Your task to perform on an android device: Add "razer deathadder" to the cart on newegg, then select checkout. Image 0: 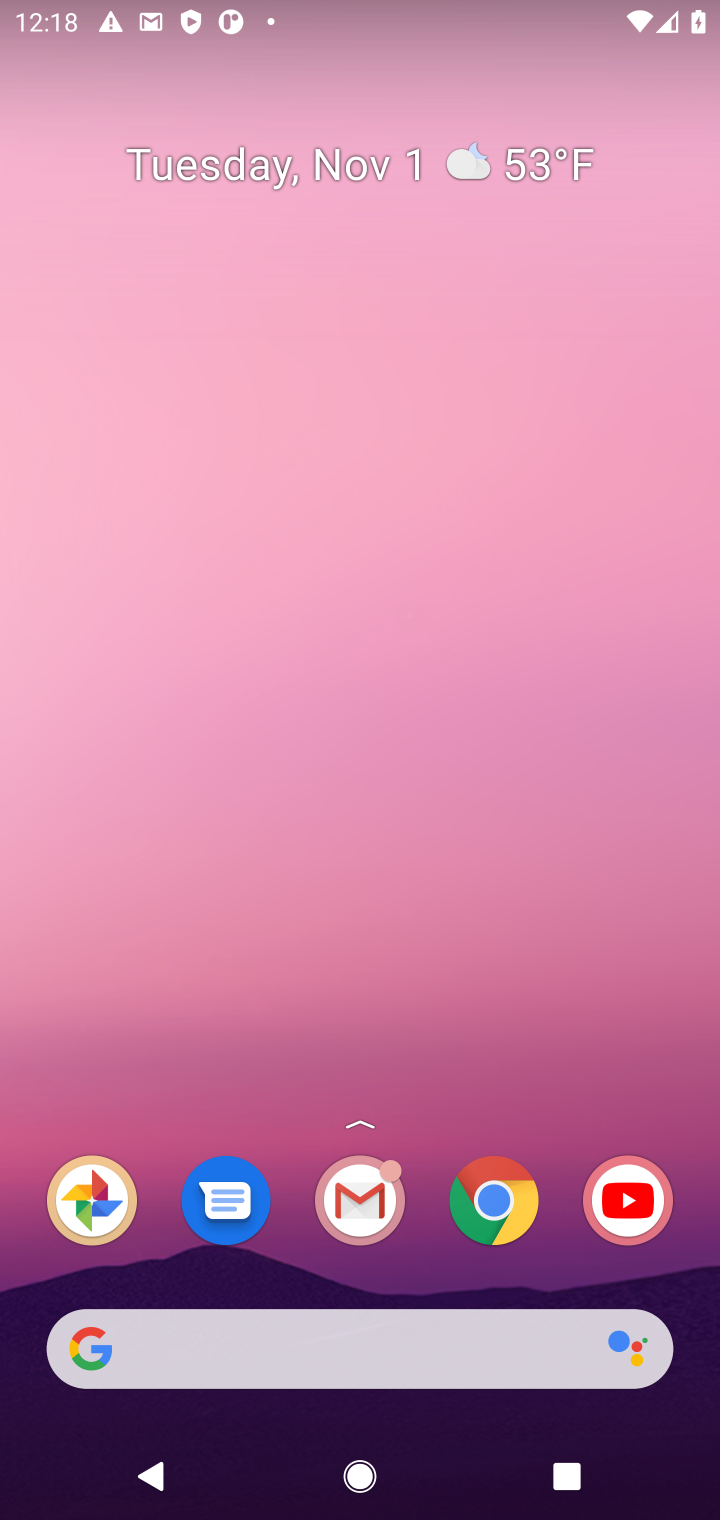
Step 0: click (502, 1207)
Your task to perform on an android device: Add "razer deathadder" to the cart on newegg, then select checkout. Image 1: 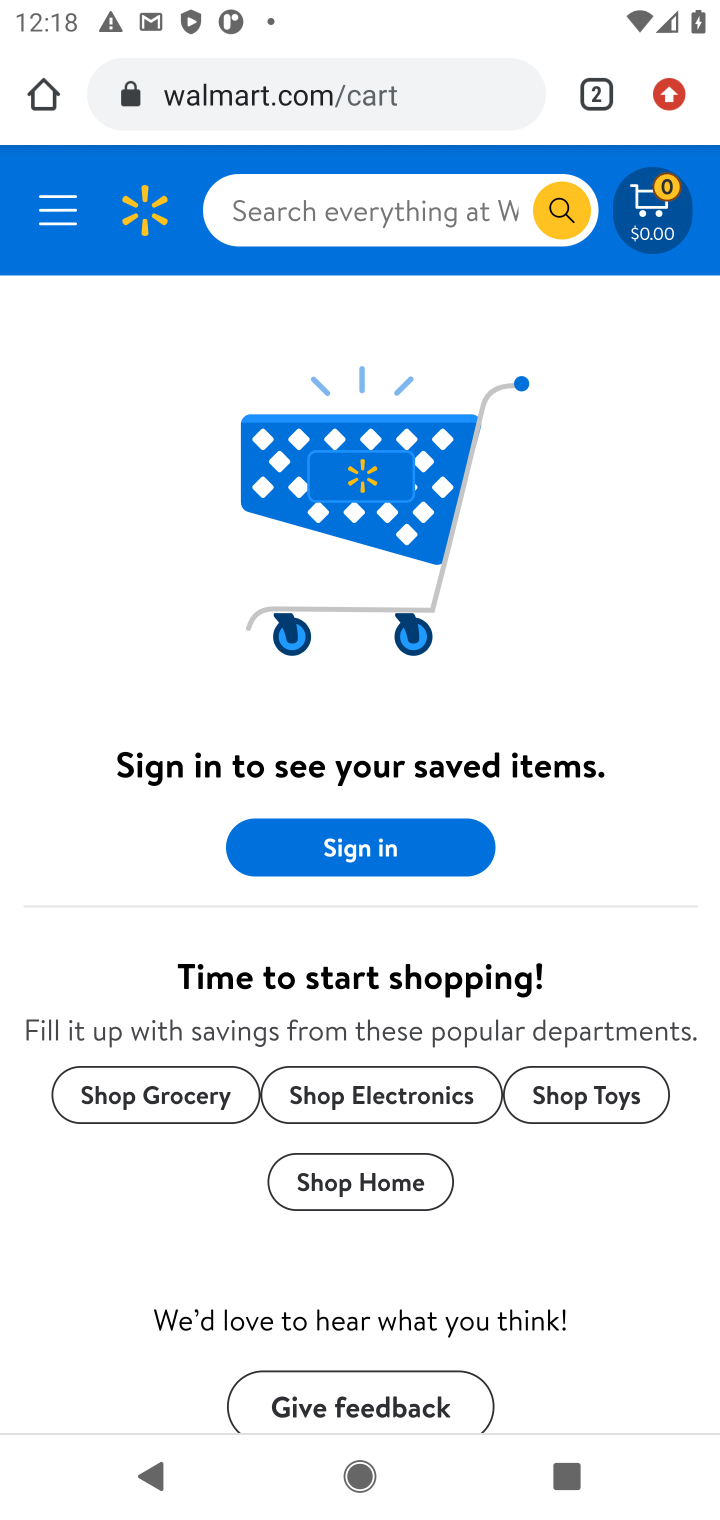
Step 1: click (357, 120)
Your task to perform on an android device: Add "razer deathadder" to the cart on newegg, then select checkout. Image 2: 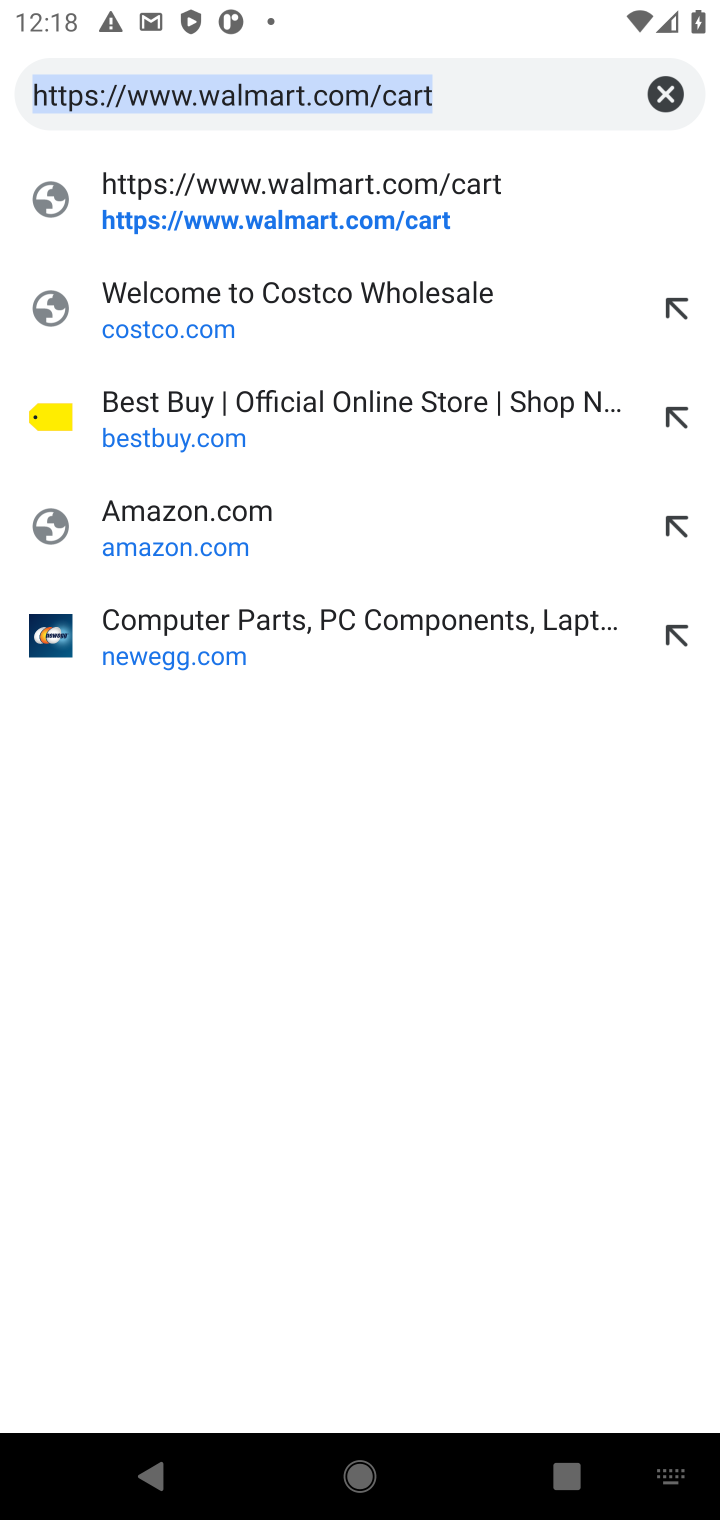
Step 2: click (433, 620)
Your task to perform on an android device: Add "razer deathadder" to the cart on newegg, then select checkout. Image 3: 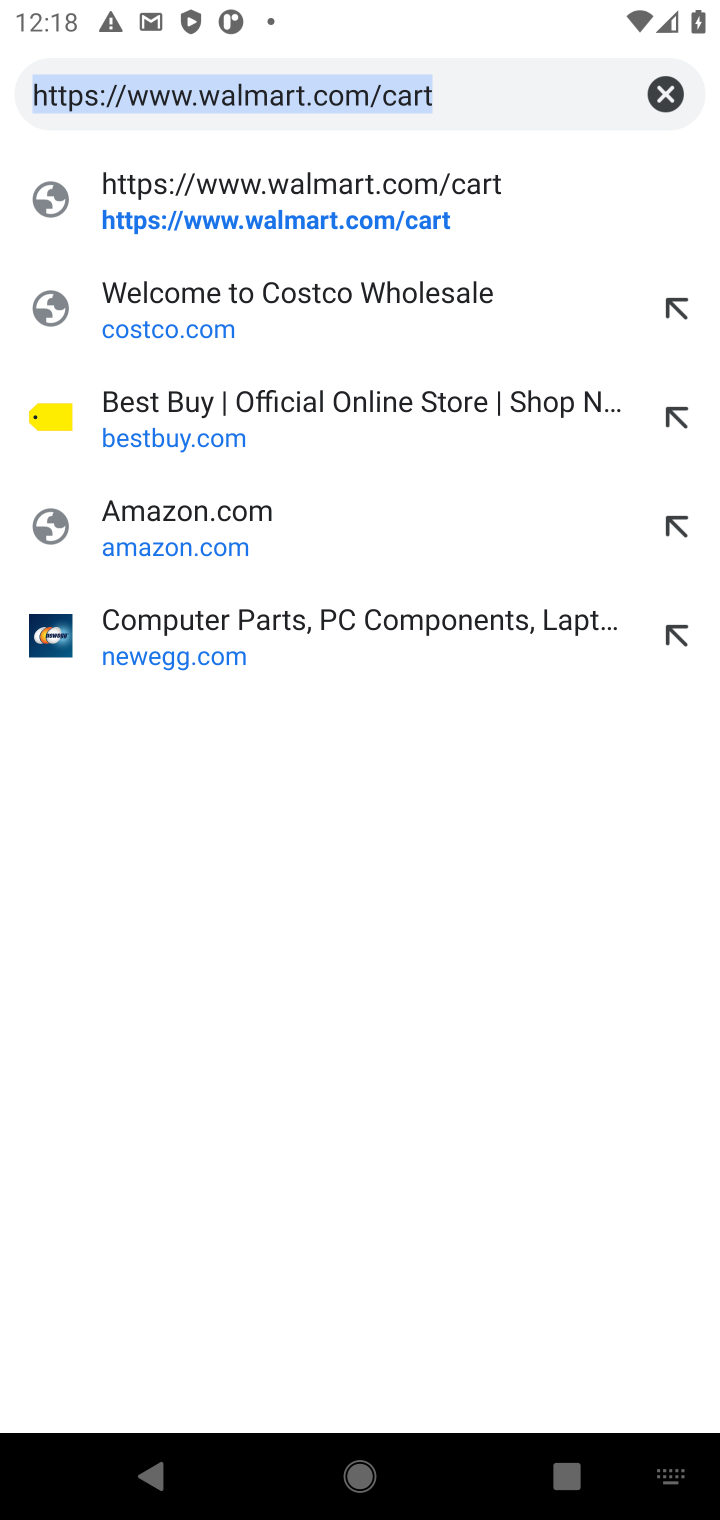
Step 3: click (407, 643)
Your task to perform on an android device: Add "razer deathadder" to the cart on newegg, then select checkout. Image 4: 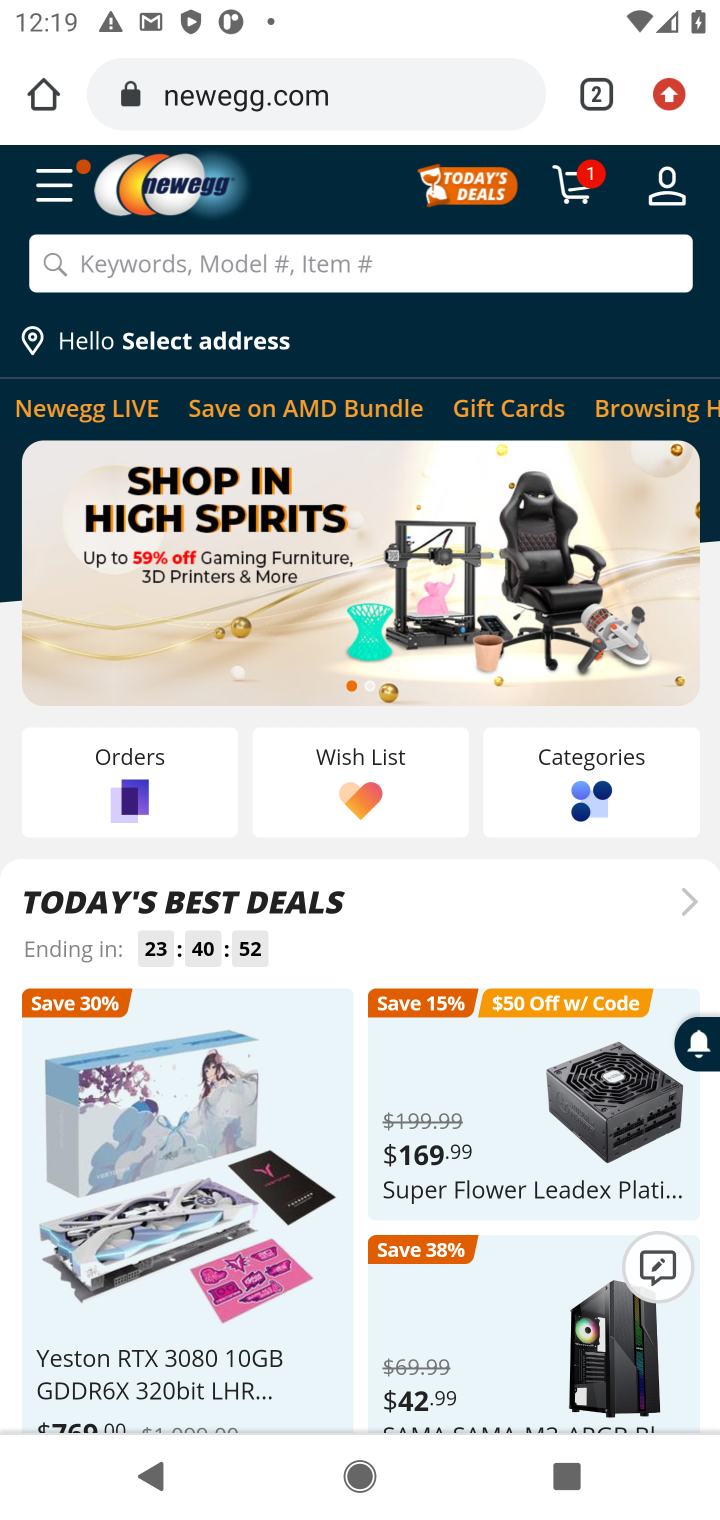
Step 4: click (146, 291)
Your task to perform on an android device: Add "razer deathadder" to the cart on newegg, then select checkout. Image 5: 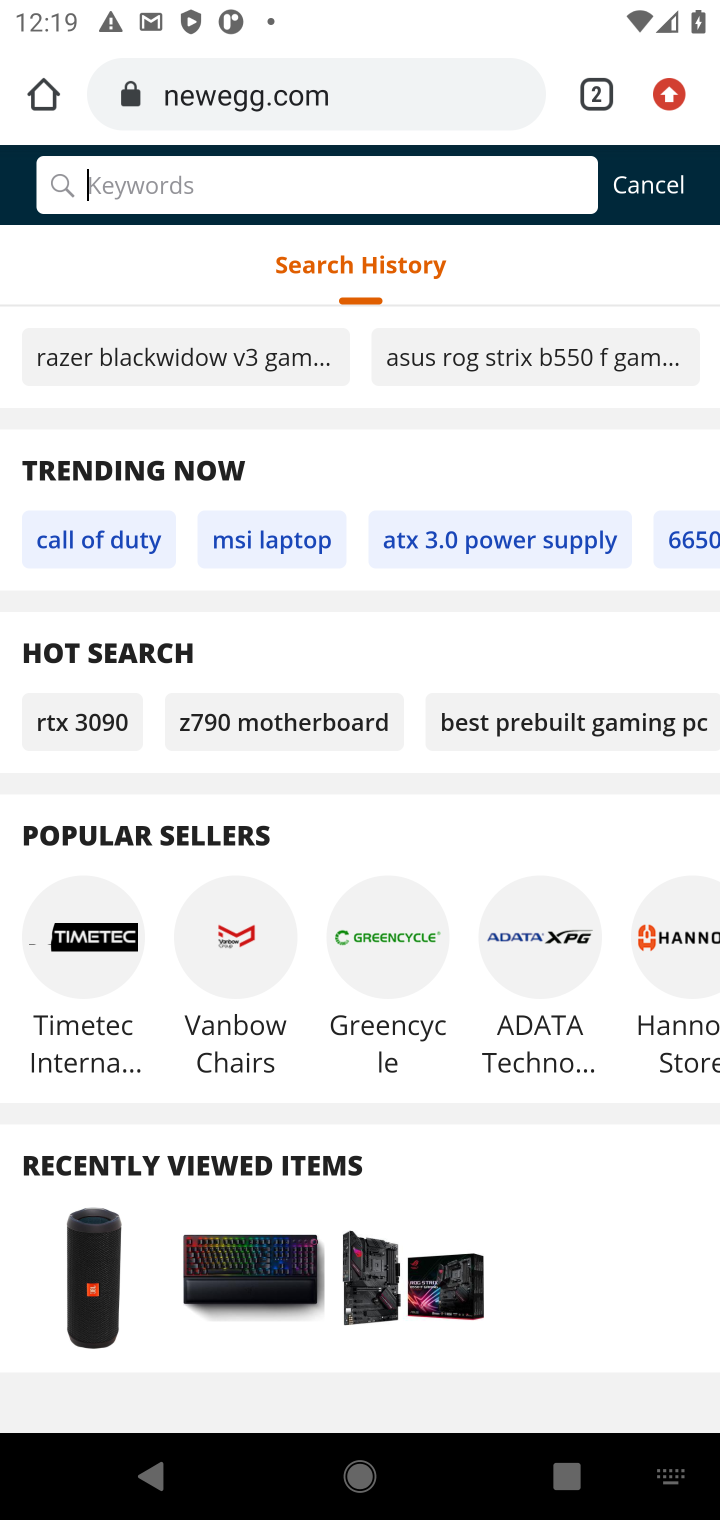
Step 5: click (195, 192)
Your task to perform on an android device: Add "razer deathadder" to the cart on newegg, then select checkout. Image 6: 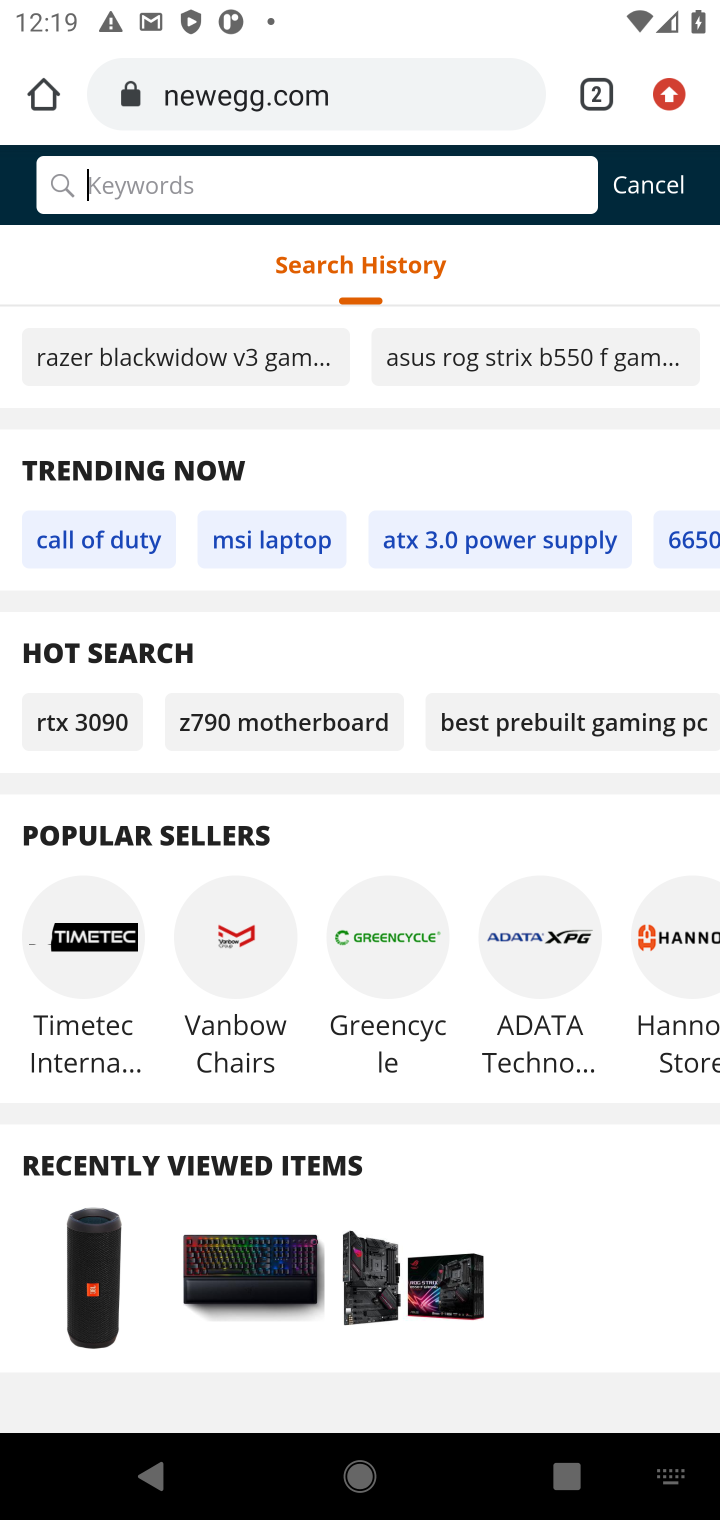
Step 6: type "razer deathadder"
Your task to perform on an android device: Add "razer deathadder" to the cart on newegg, then select checkout. Image 7: 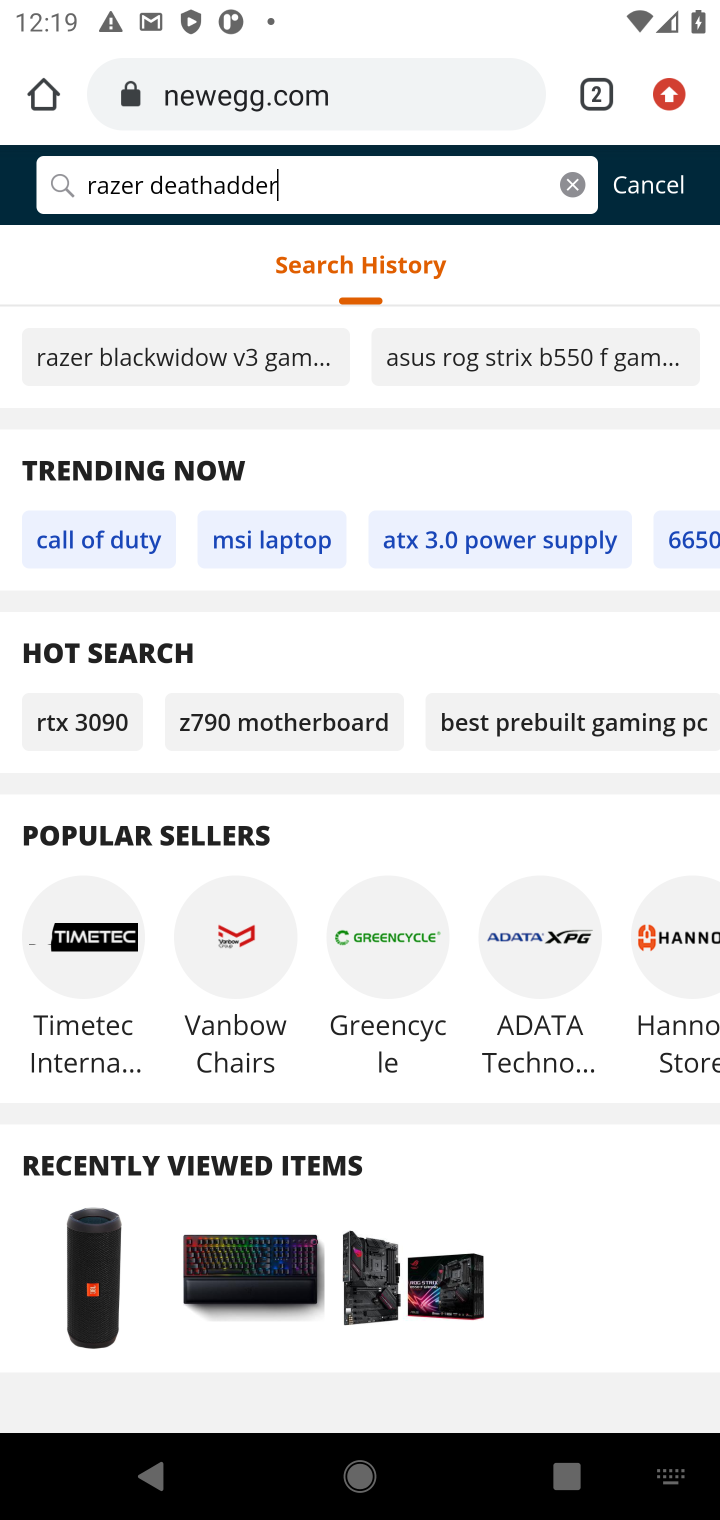
Step 7: type ""
Your task to perform on an android device: Add "razer deathadder" to the cart on newegg, then select checkout. Image 8: 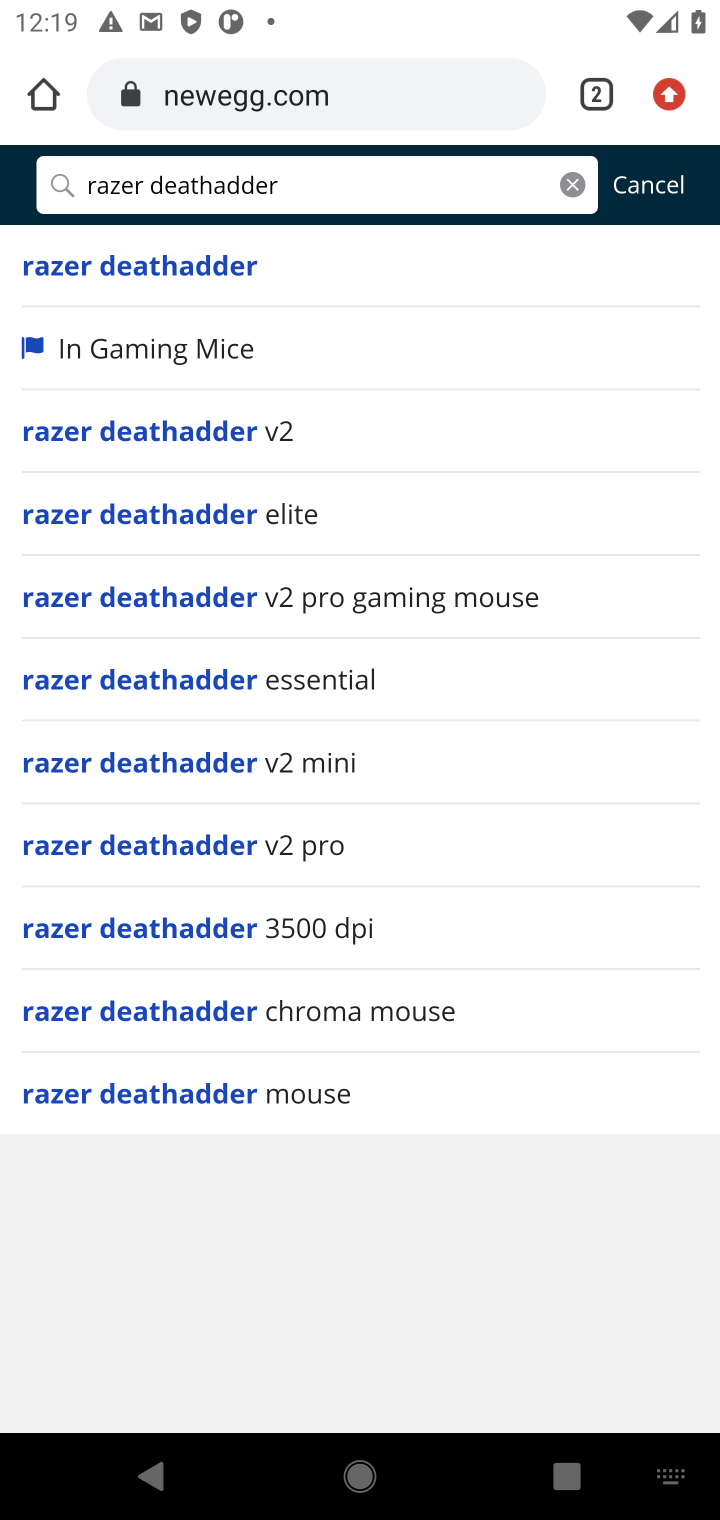
Step 8: click (427, 285)
Your task to perform on an android device: Add "razer deathadder" to the cart on newegg, then select checkout. Image 9: 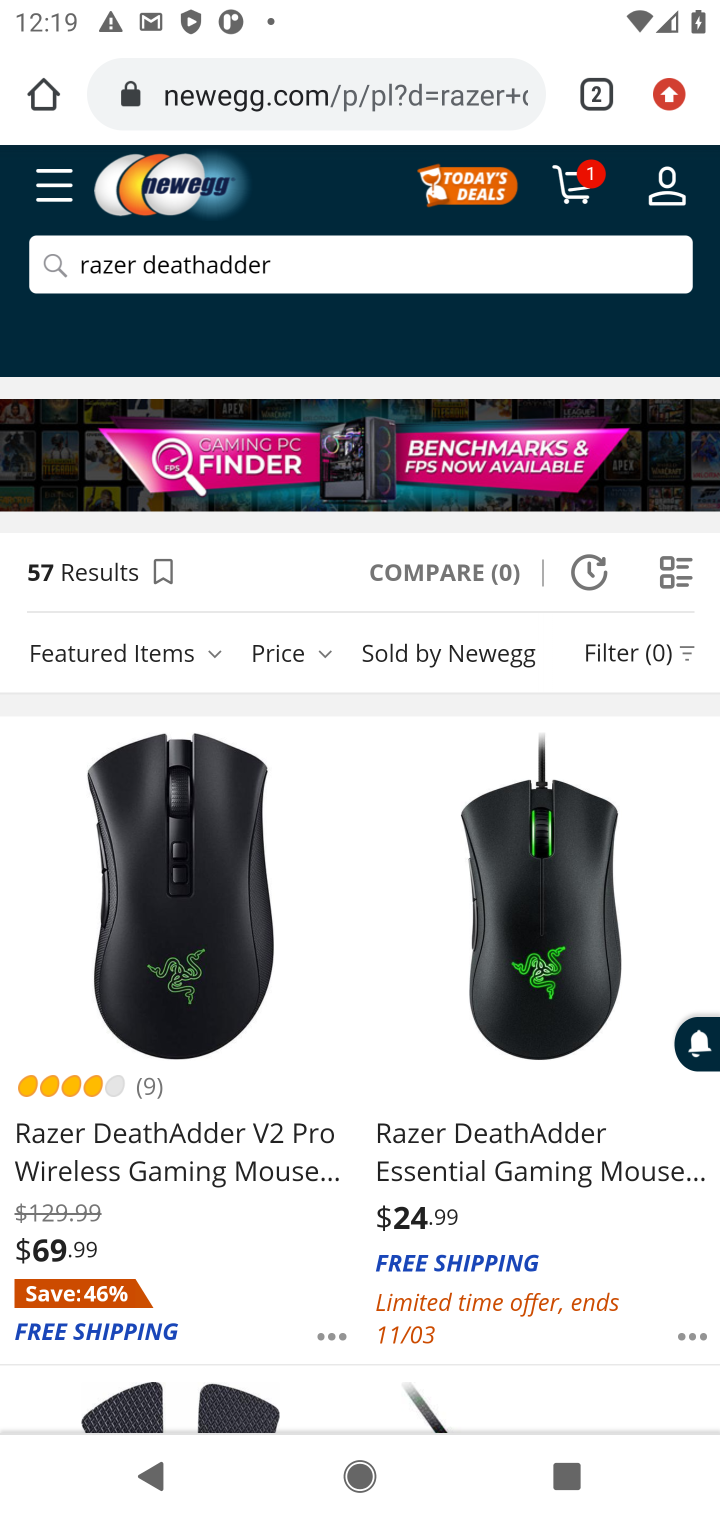
Step 9: click (220, 1134)
Your task to perform on an android device: Add "razer deathadder" to the cart on newegg, then select checkout. Image 10: 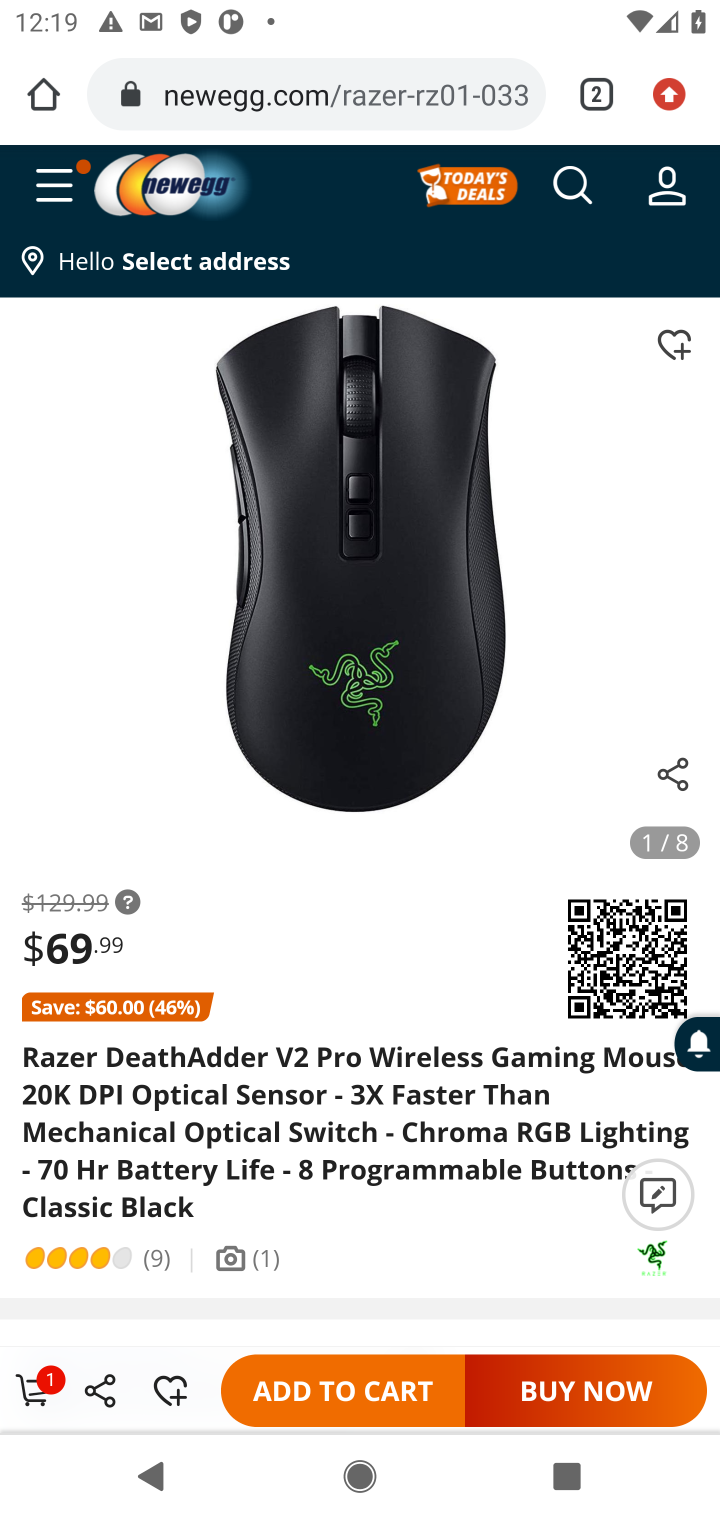
Step 10: click (350, 1421)
Your task to perform on an android device: Add "razer deathadder" to the cart on newegg, then select checkout. Image 11: 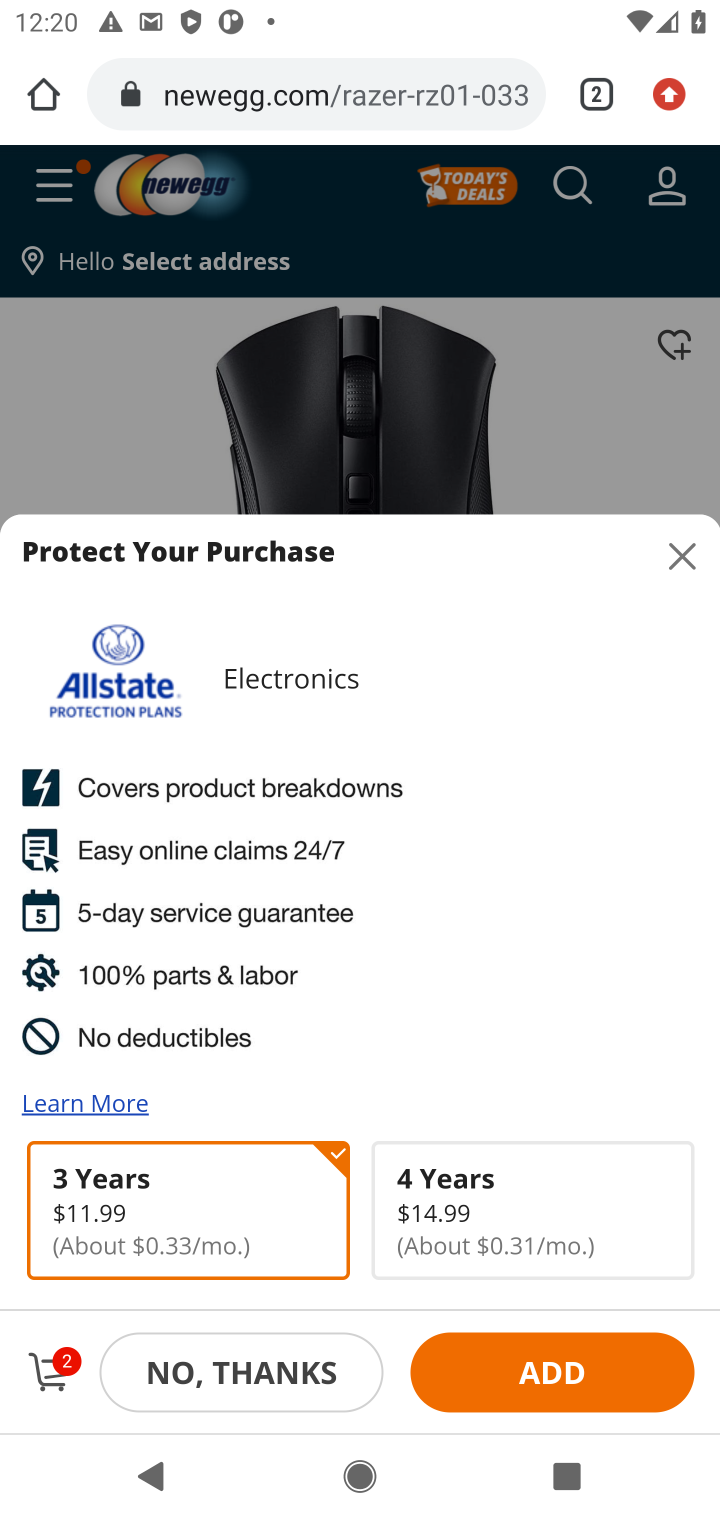
Step 11: click (223, 1360)
Your task to perform on an android device: Add "razer deathadder" to the cart on newegg, then select checkout. Image 12: 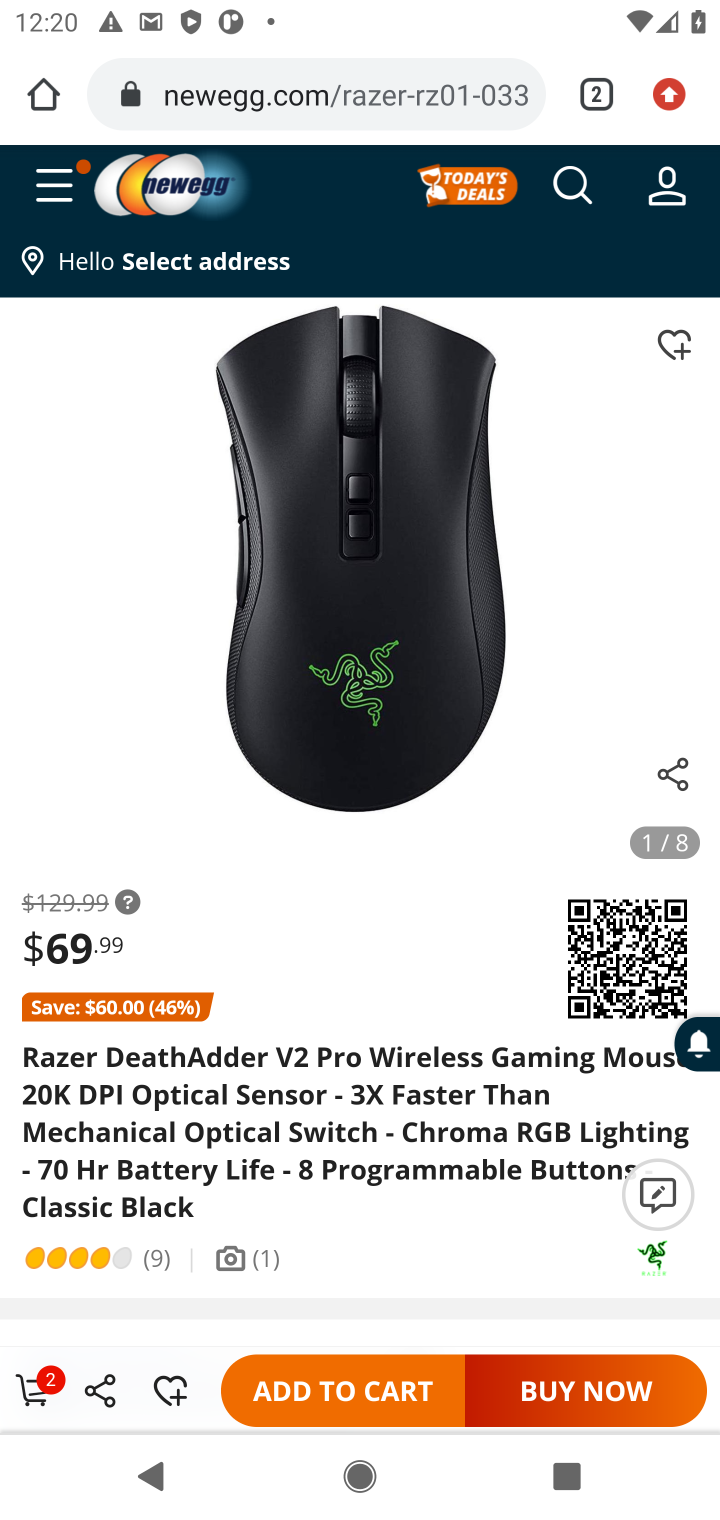
Step 12: click (251, 1404)
Your task to perform on an android device: Add "razer deathadder" to the cart on newegg, then select checkout. Image 13: 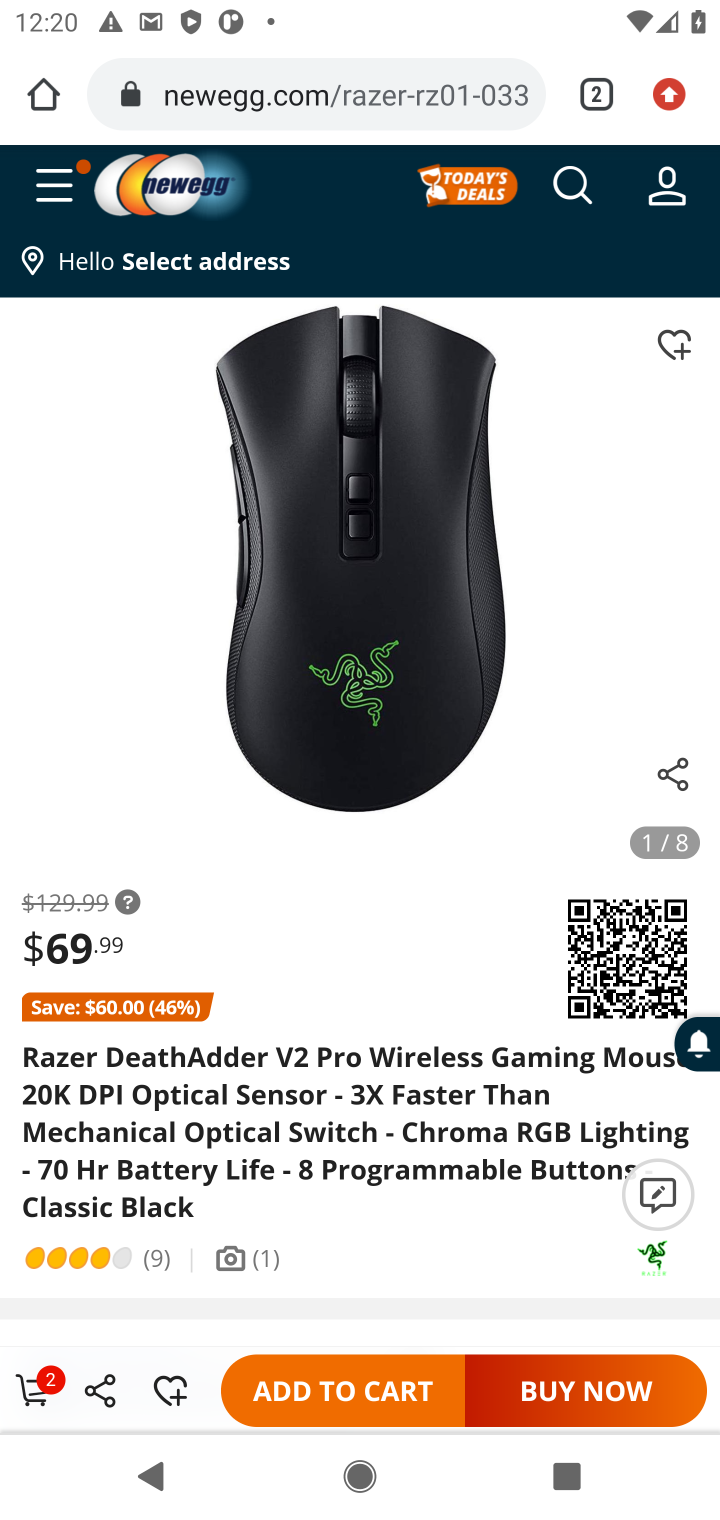
Step 13: click (277, 1368)
Your task to perform on an android device: Add "razer deathadder" to the cart on newegg, then select checkout. Image 14: 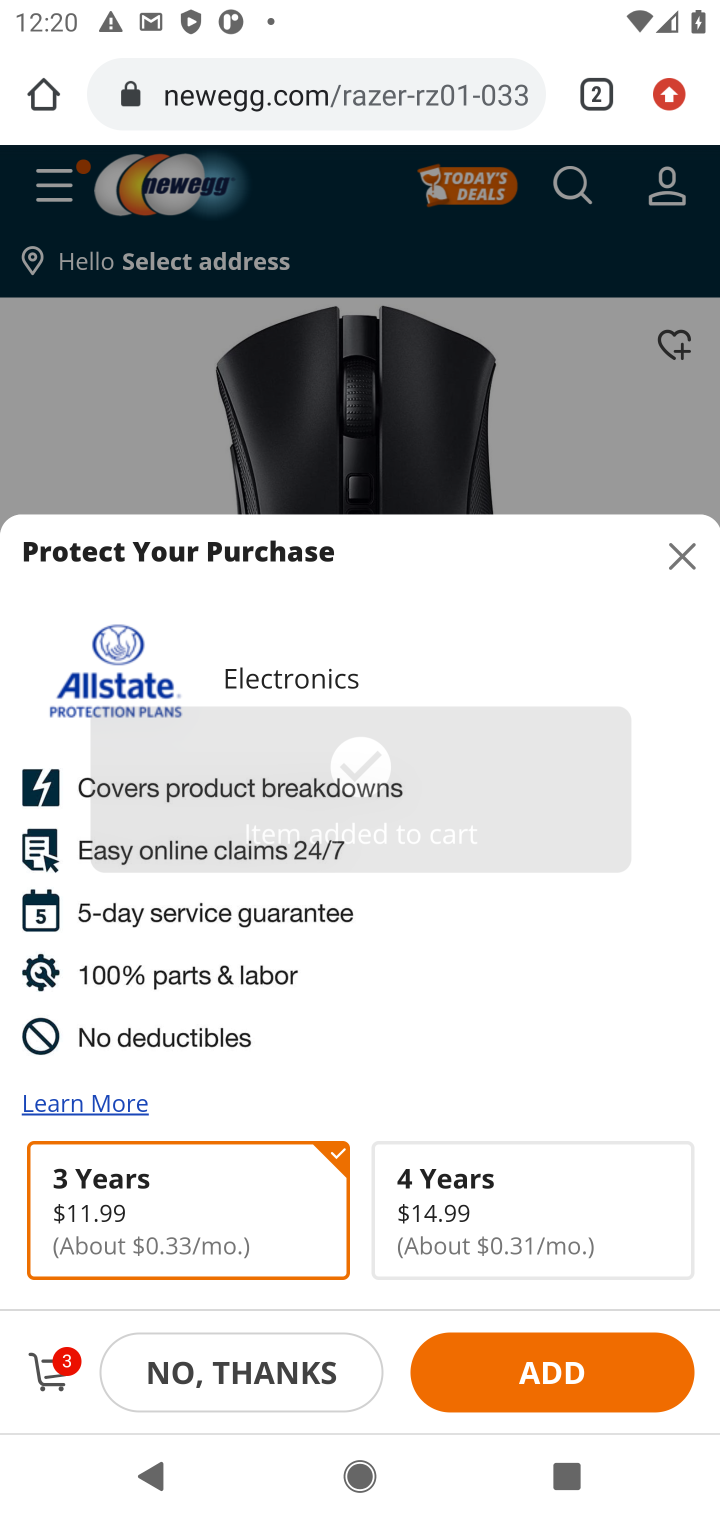
Step 14: click (277, 1368)
Your task to perform on an android device: Add "razer deathadder" to the cart on newegg, then select checkout. Image 15: 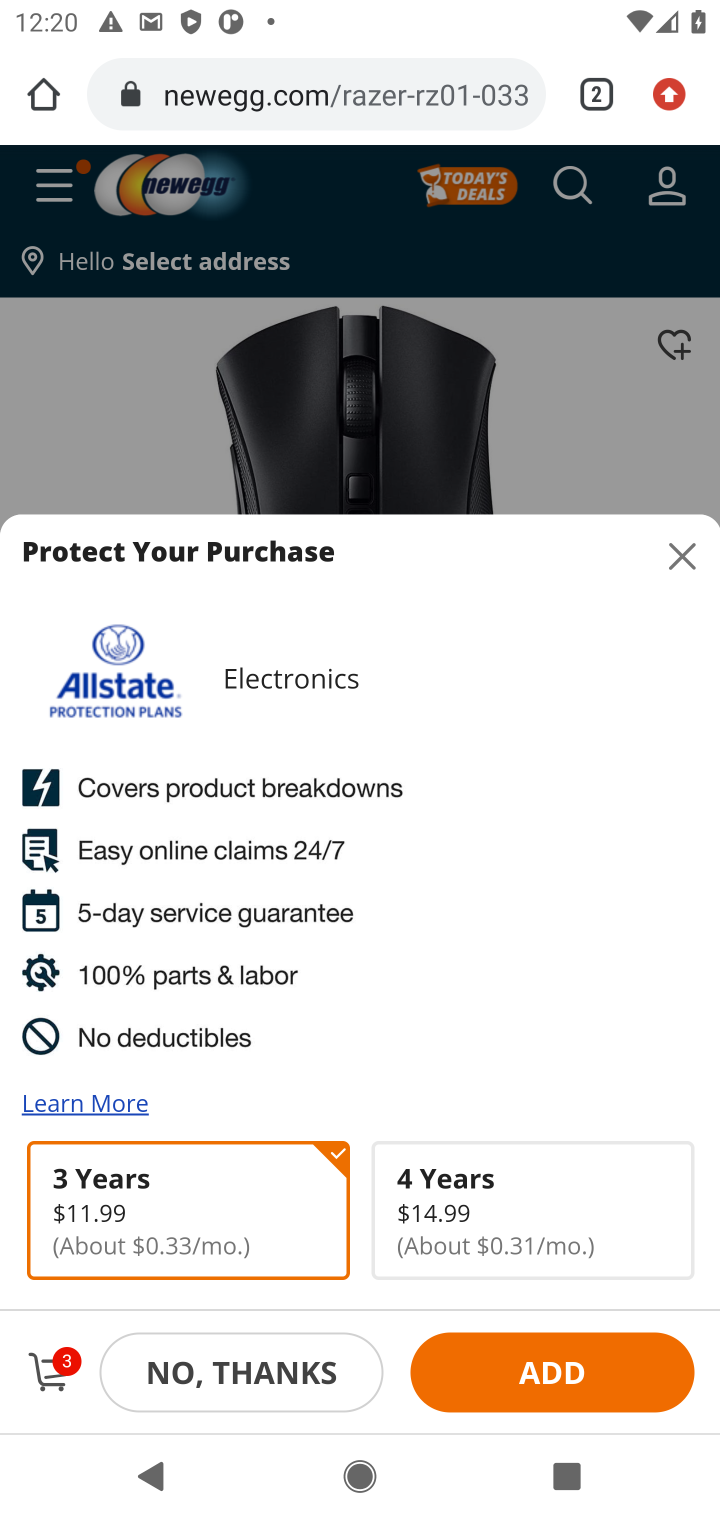
Step 15: click (277, 1368)
Your task to perform on an android device: Add "razer deathadder" to the cart on newegg, then select checkout. Image 16: 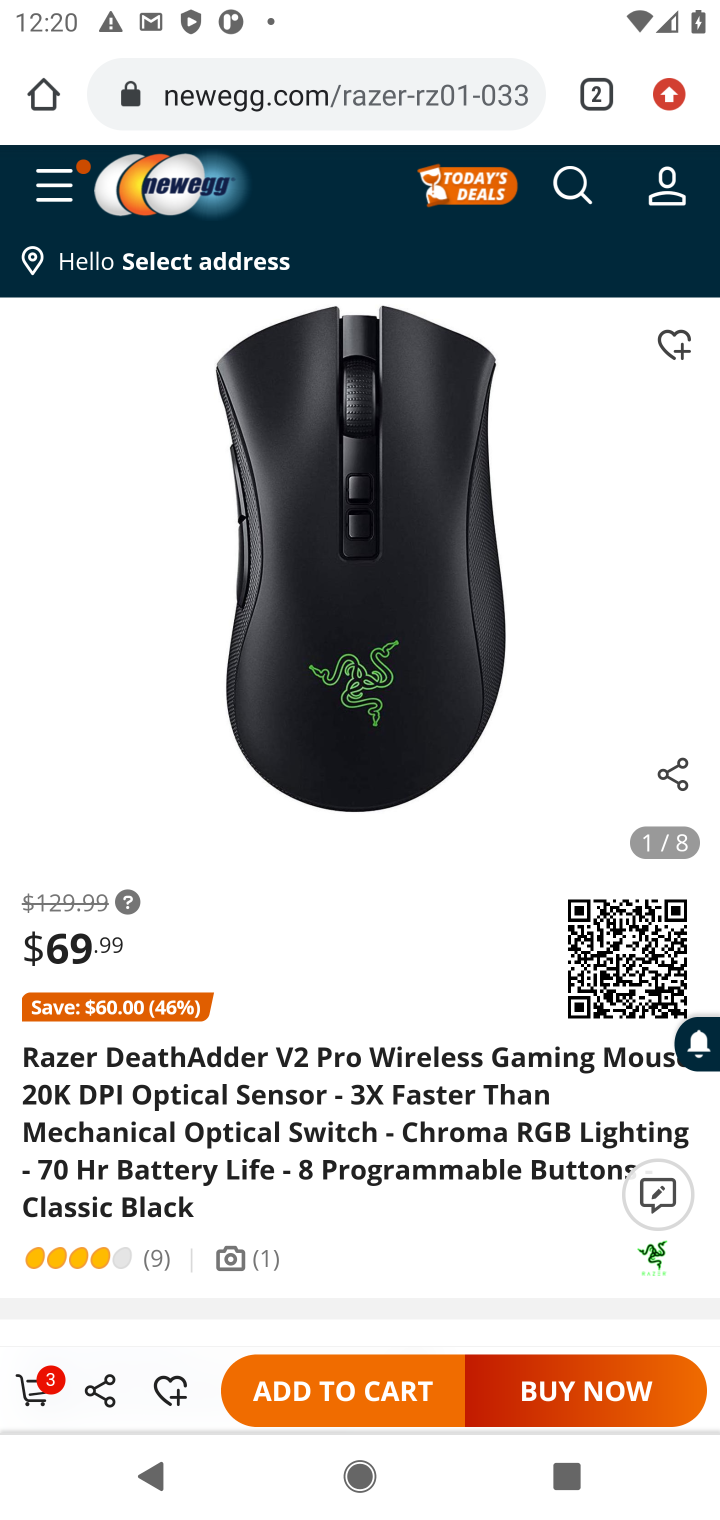
Step 16: click (381, 1407)
Your task to perform on an android device: Add "razer deathadder" to the cart on newegg, then select checkout. Image 17: 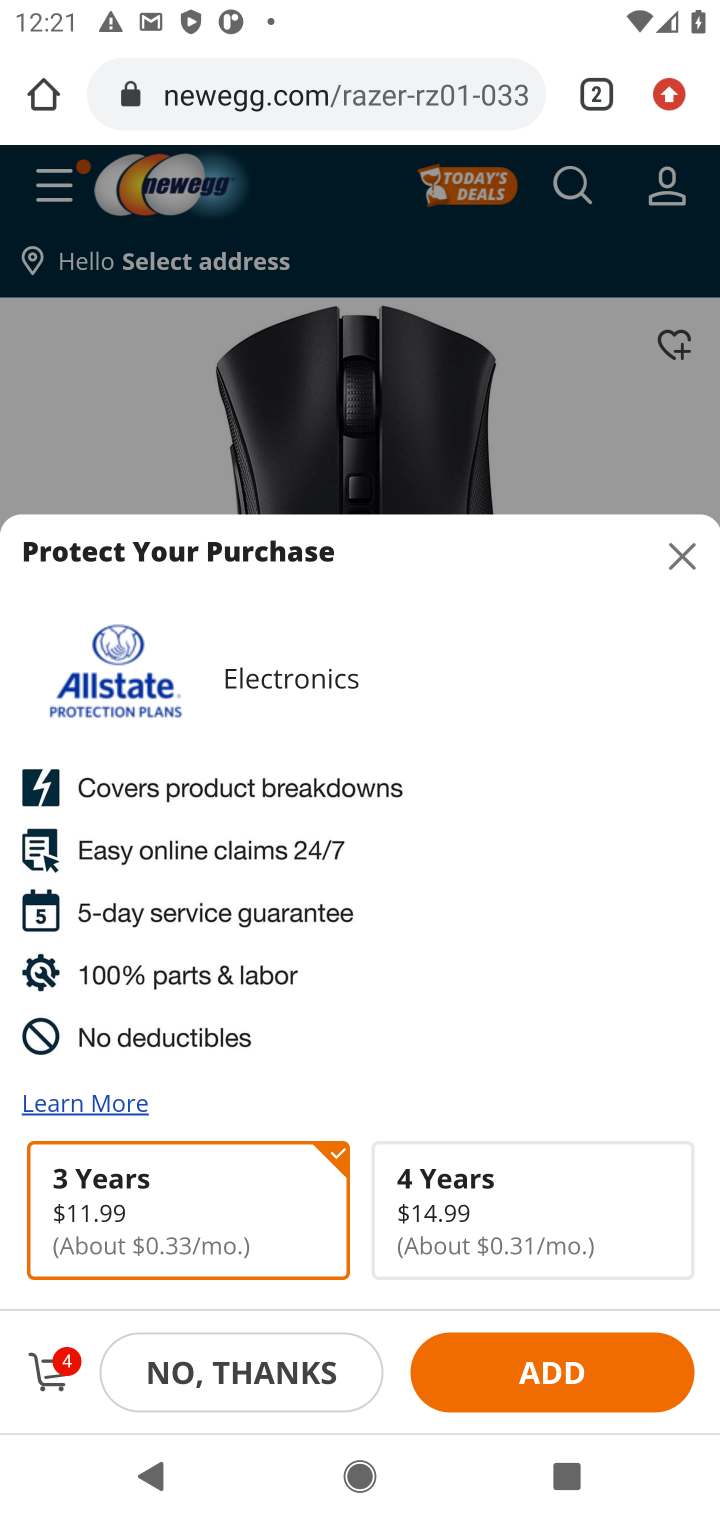
Step 17: click (203, 1376)
Your task to perform on an android device: Add "razer deathadder" to the cart on newegg, then select checkout. Image 18: 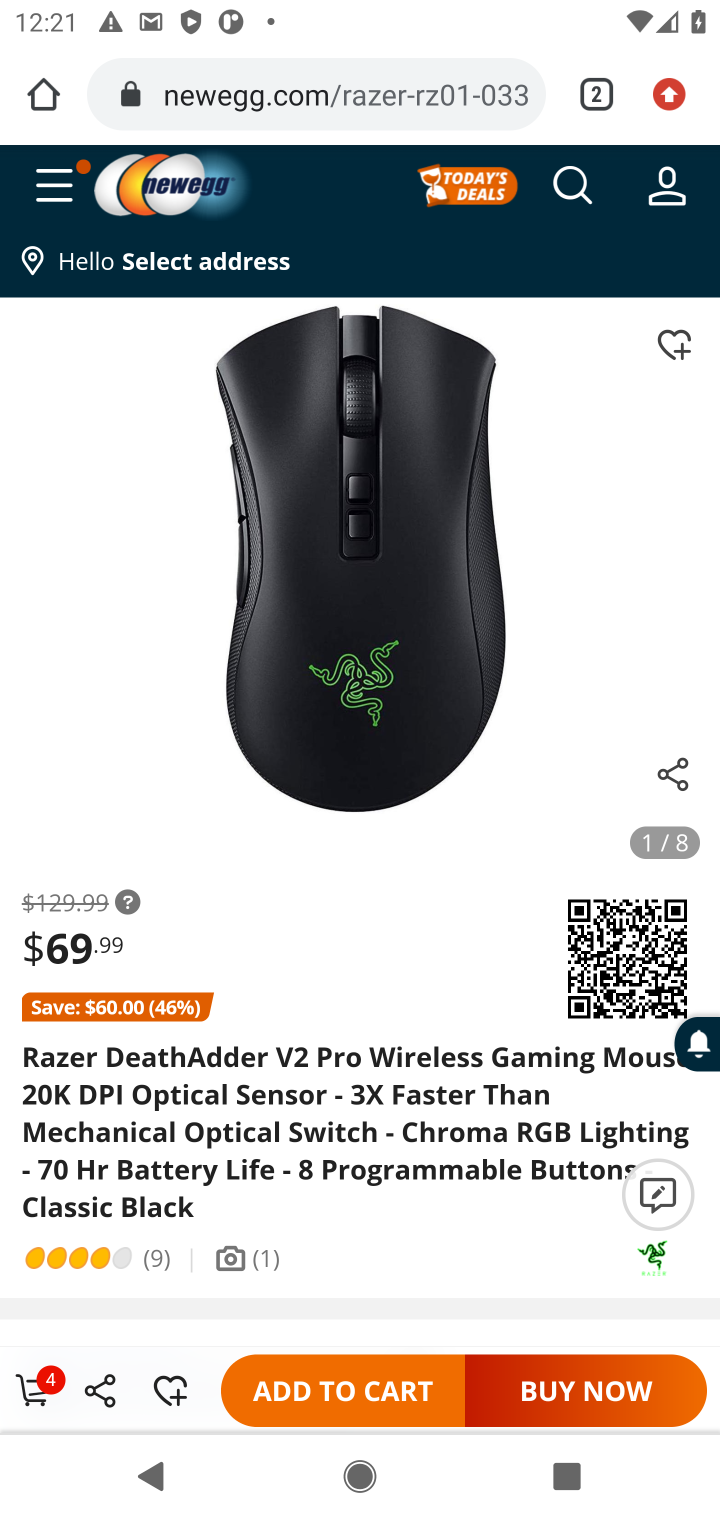
Step 18: task complete